Your task to perform on an android device: Go to CNN.com Image 0: 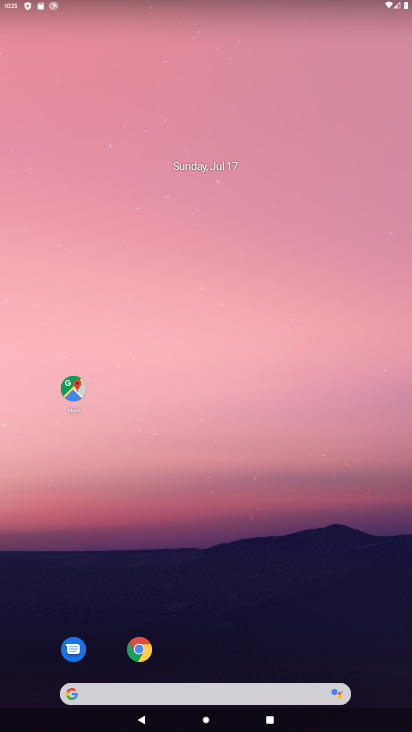
Step 0: drag from (205, 658) to (200, 139)
Your task to perform on an android device: Go to CNN.com Image 1: 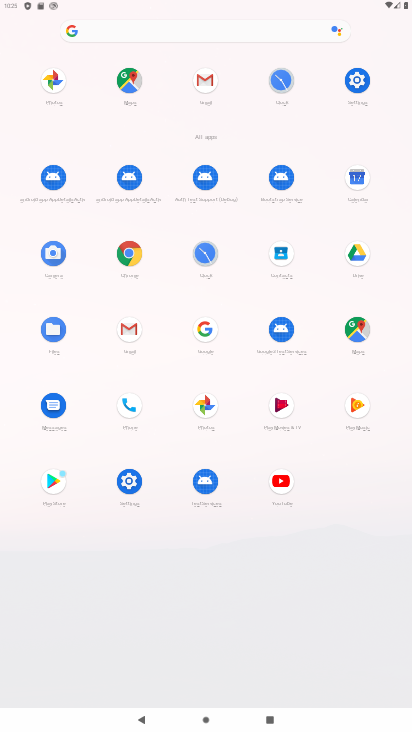
Step 1: click (206, 329)
Your task to perform on an android device: Go to CNN.com Image 2: 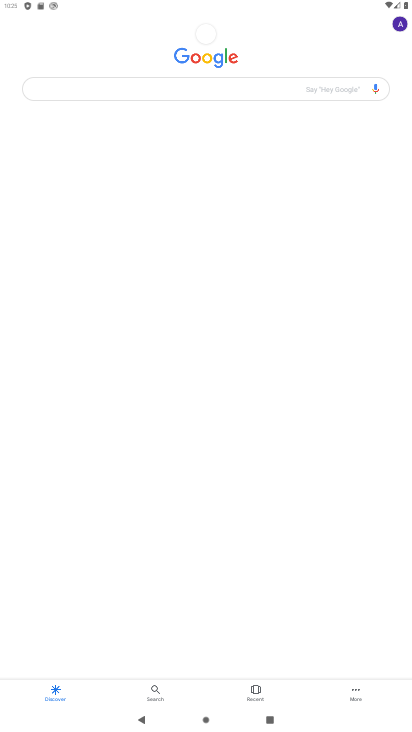
Step 2: click (206, 86)
Your task to perform on an android device: Go to CNN.com Image 3: 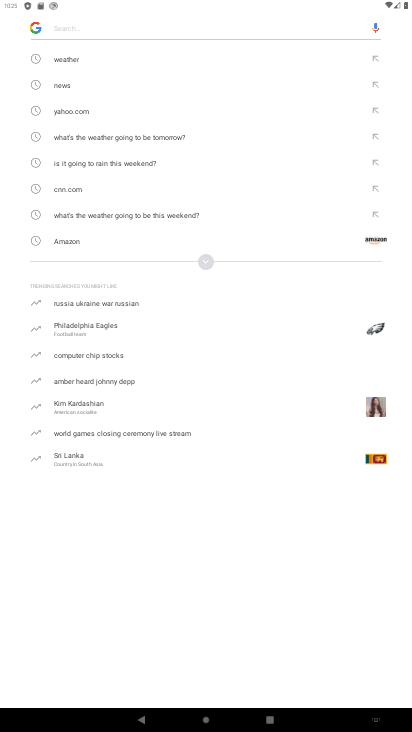
Step 3: type "cnn.com"
Your task to perform on an android device: Go to CNN.com Image 4: 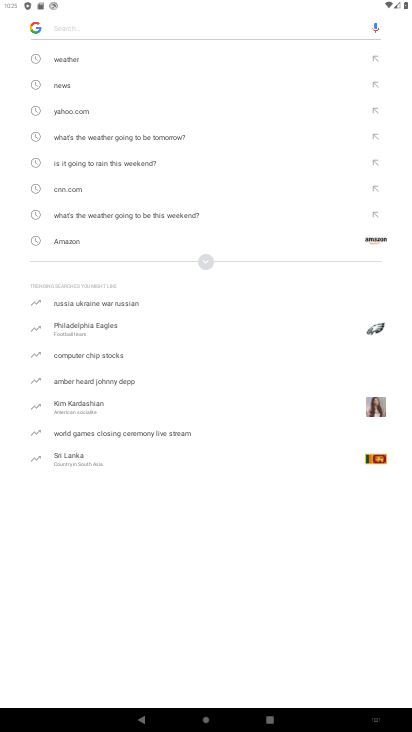
Step 4: click (149, 192)
Your task to perform on an android device: Go to CNN.com Image 5: 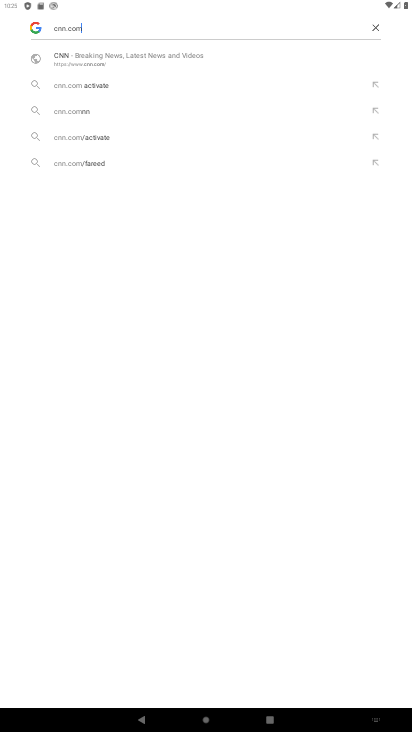
Step 5: click (122, 54)
Your task to perform on an android device: Go to CNN.com Image 6: 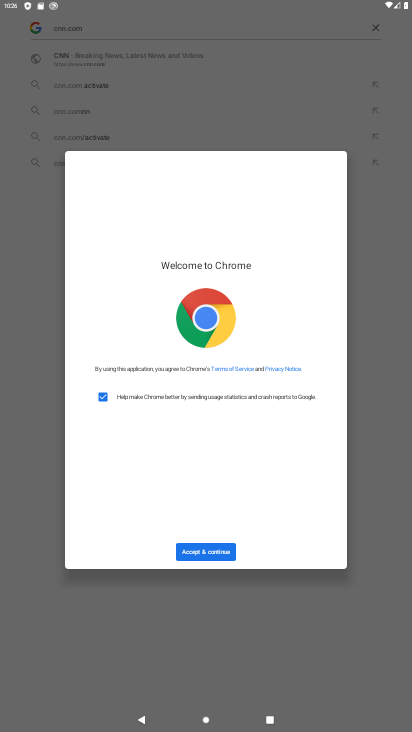
Step 6: click (189, 548)
Your task to perform on an android device: Go to CNN.com Image 7: 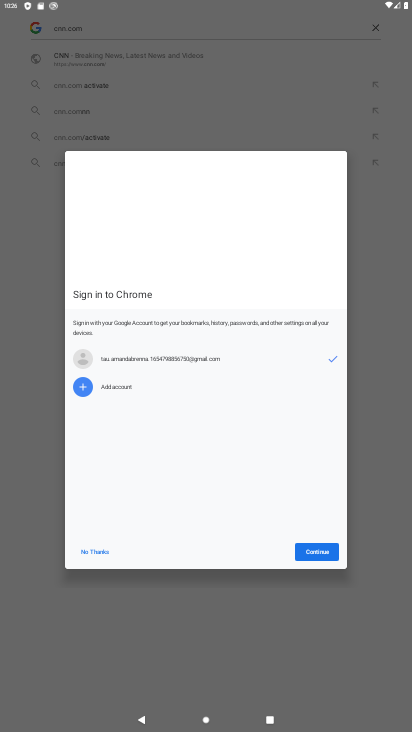
Step 7: click (323, 549)
Your task to perform on an android device: Go to CNN.com Image 8: 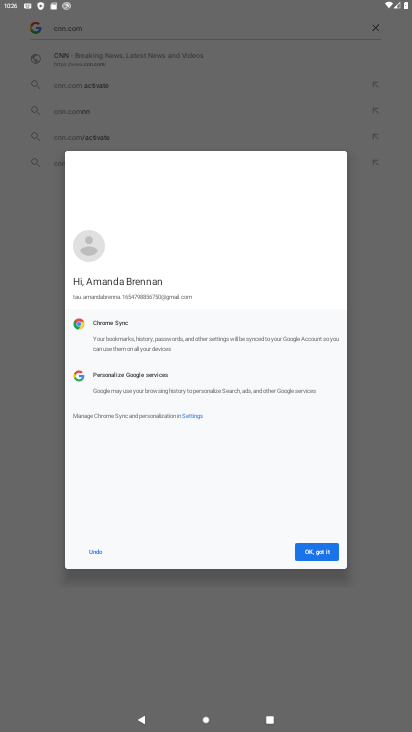
Step 8: click (323, 549)
Your task to perform on an android device: Go to CNN.com Image 9: 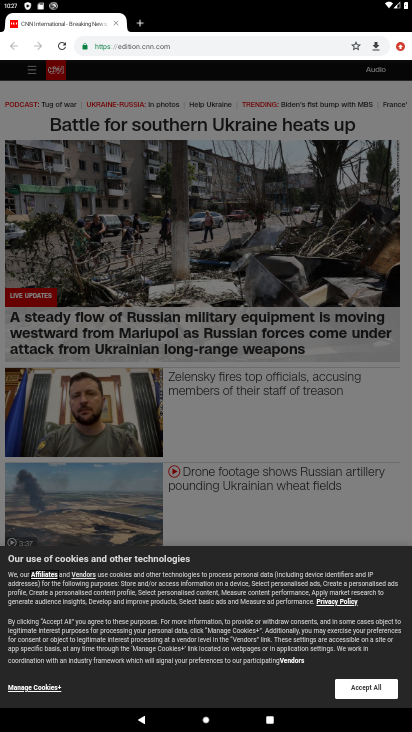
Step 9: task complete